Your task to perform on an android device: Open Chrome and go to the settings page Image 0: 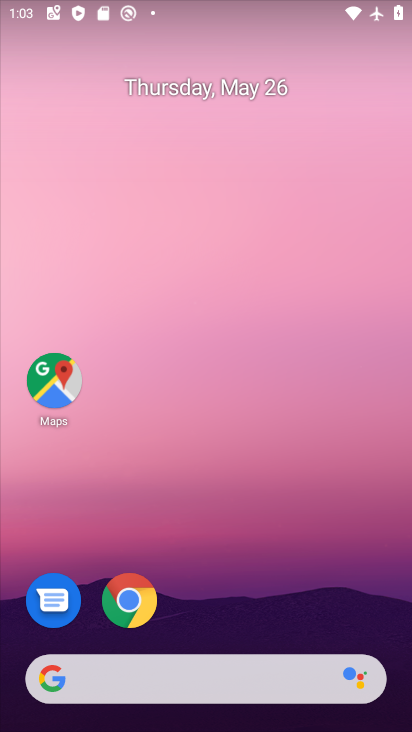
Step 0: drag from (304, 557) to (201, 98)
Your task to perform on an android device: Open Chrome and go to the settings page Image 1: 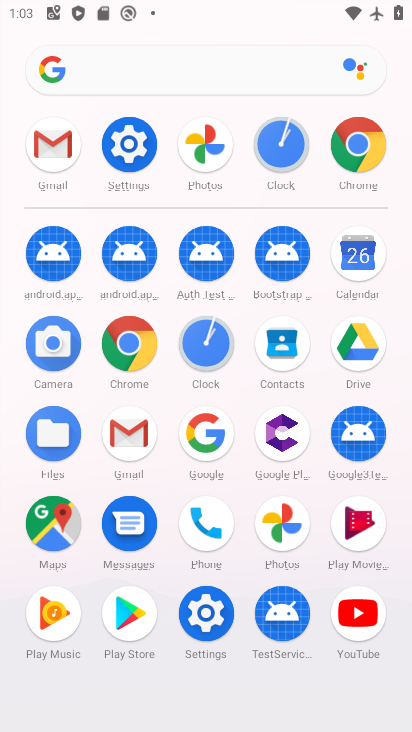
Step 1: click (128, 356)
Your task to perform on an android device: Open Chrome and go to the settings page Image 2: 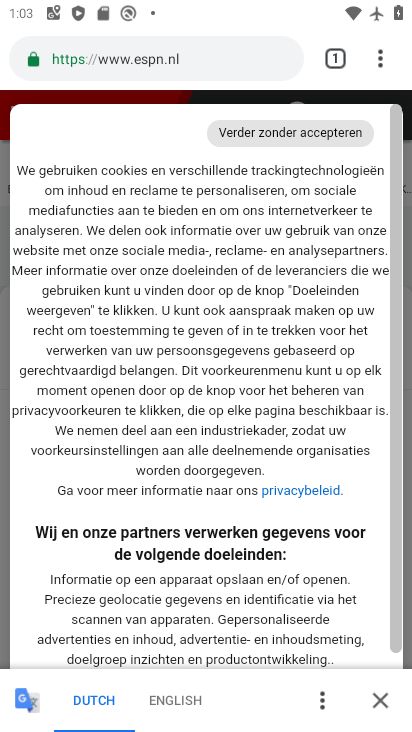
Step 2: task complete